Your task to perform on an android device: Check the news Image 0: 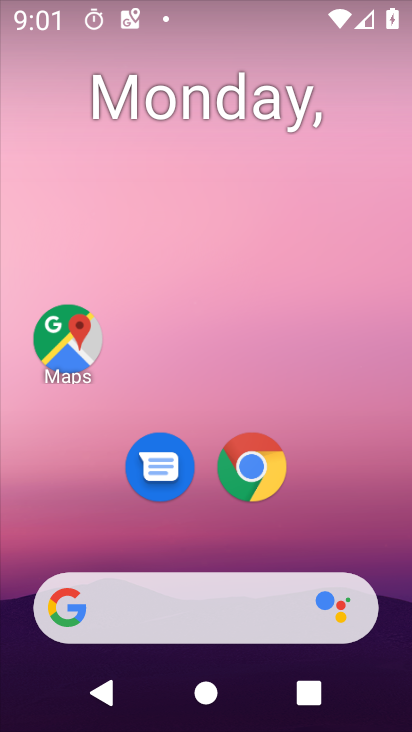
Step 0: click (188, 621)
Your task to perform on an android device: Check the news Image 1: 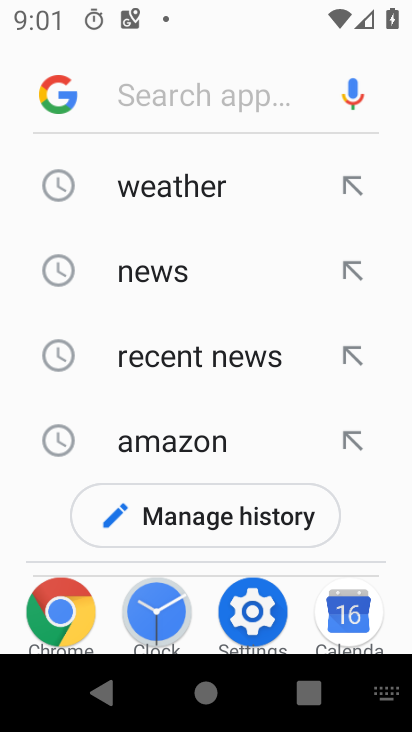
Step 1: click (190, 271)
Your task to perform on an android device: Check the news Image 2: 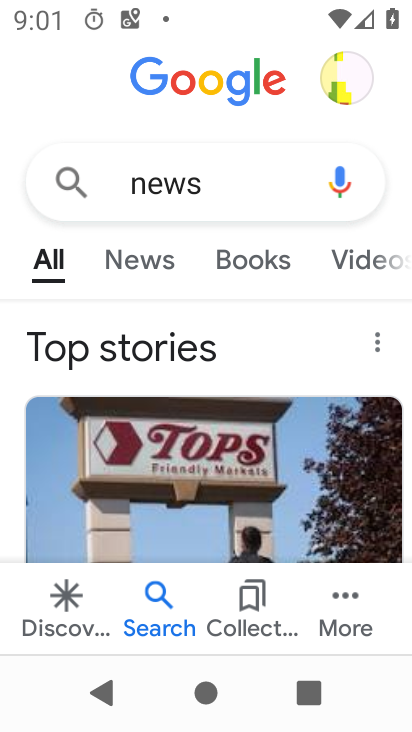
Step 2: task complete